Your task to perform on an android device: turn on location history Image 0: 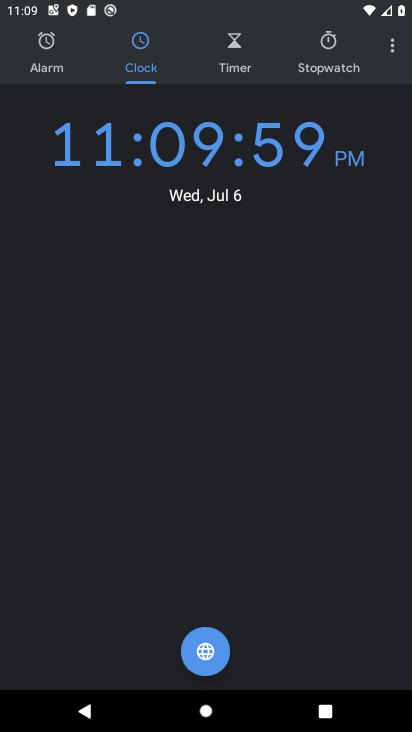
Step 0: press home button
Your task to perform on an android device: turn on location history Image 1: 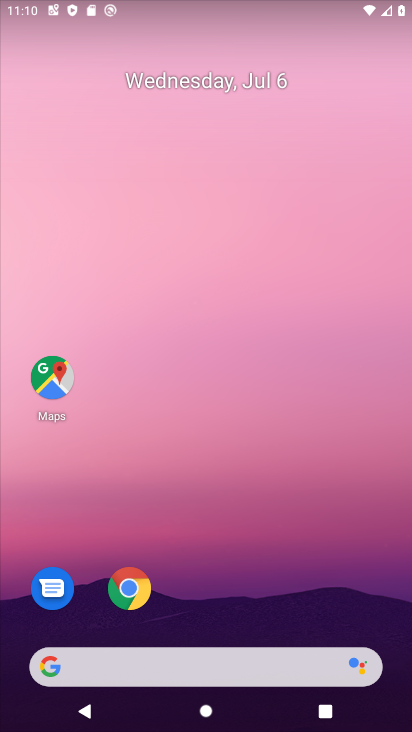
Step 1: drag from (228, 586) to (248, 372)
Your task to perform on an android device: turn on location history Image 2: 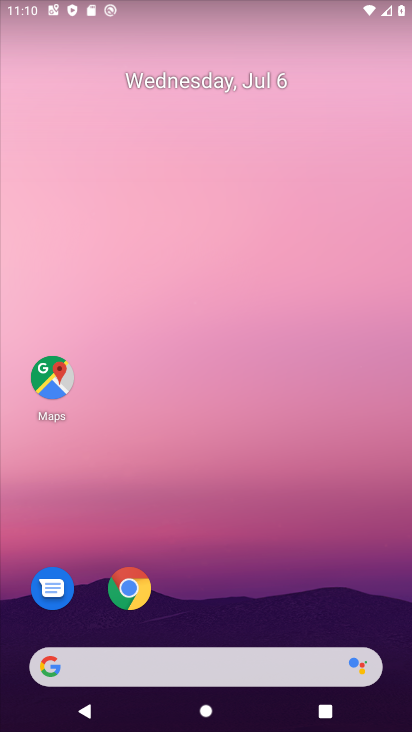
Step 2: drag from (240, 651) to (265, 410)
Your task to perform on an android device: turn on location history Image 3: 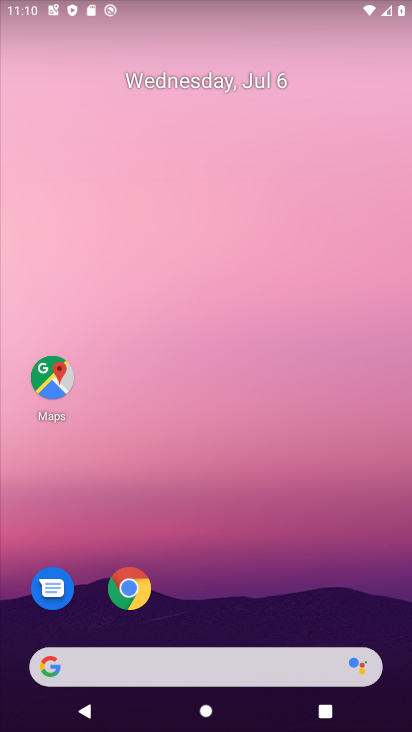
Step 3: drag from (234, 655) to (244, 425)
Your task to perform on an android device: turn on location history Image 4: 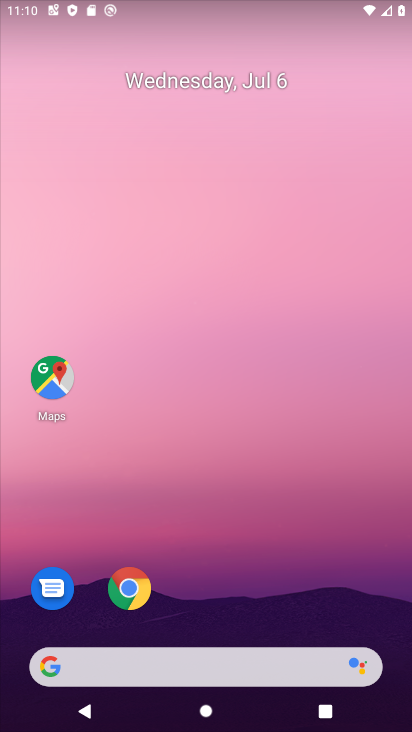
Step 4: drag from (286, 610) to (286, 160)
Your task to perform on an android device: turn on location history Image 5: 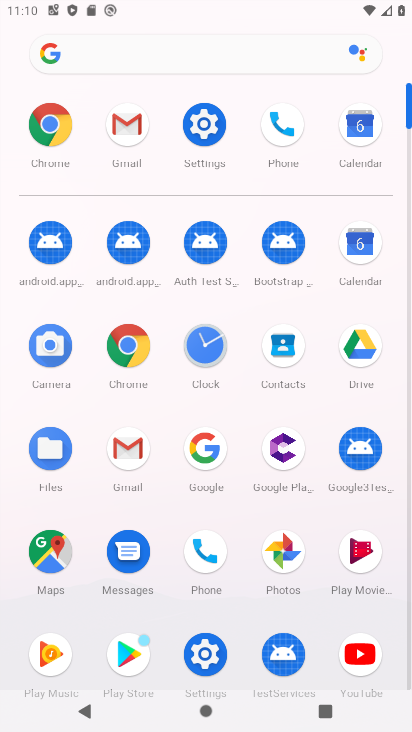
Step 5: click (199, 112)
Your task to perform on an android device: turn on location history Image 6: 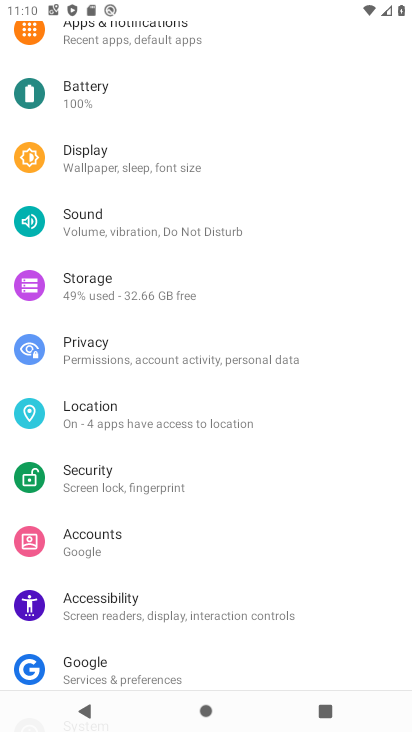
Step 6: click (140, 414)
Your task to perform on an android device: turn on location history Image 7: 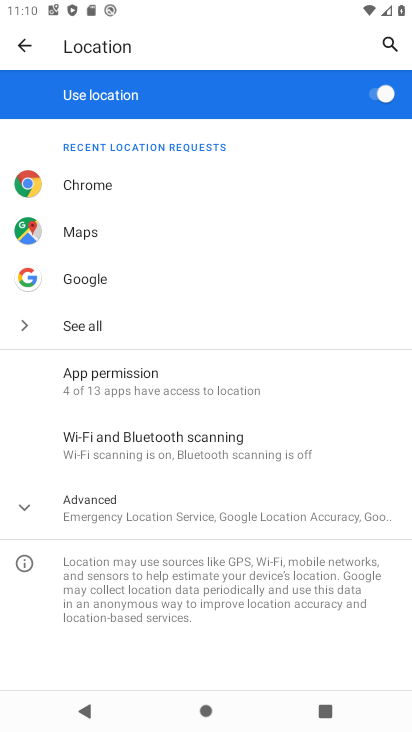
Step 7: click (142, 516)
Your task to perform on an android device: turn on location history Image 8: 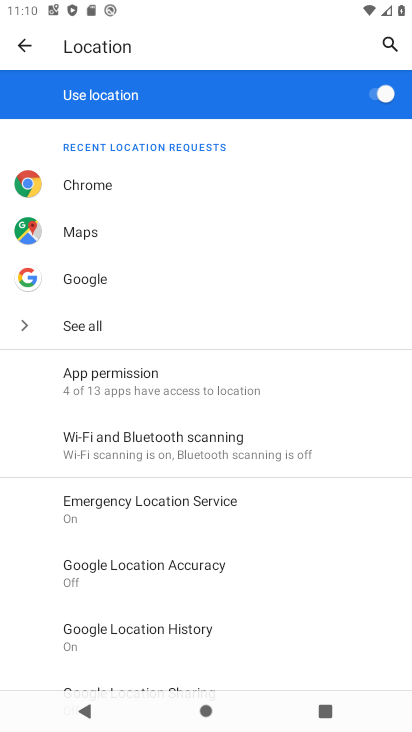
Step 8: drag from (152, 618) to (167, 284)
Your task to perform on an android device: turn on location history Image 9: 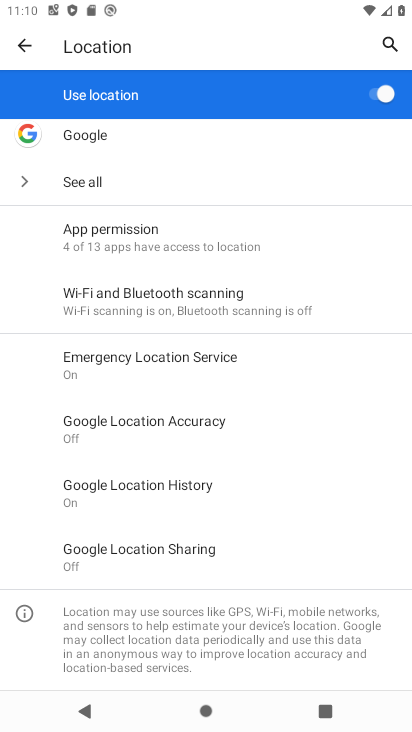
Step 9: click (158, 507)
Your task to perform on an android device: turn on location history Image 10: 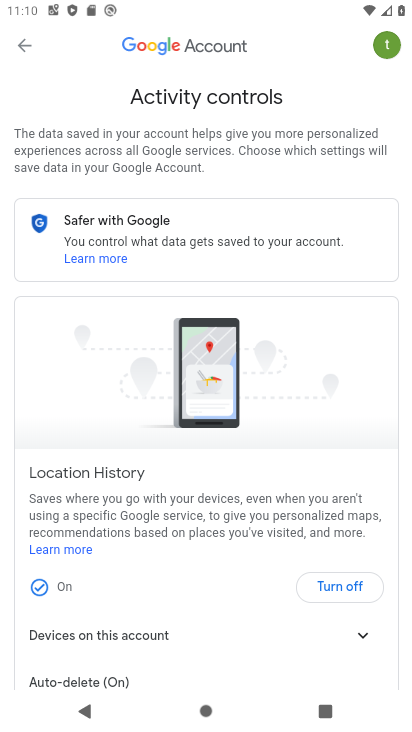
Step 10: task complete